Your task to perform on an android device: Open settings on Google Maps Image 0: 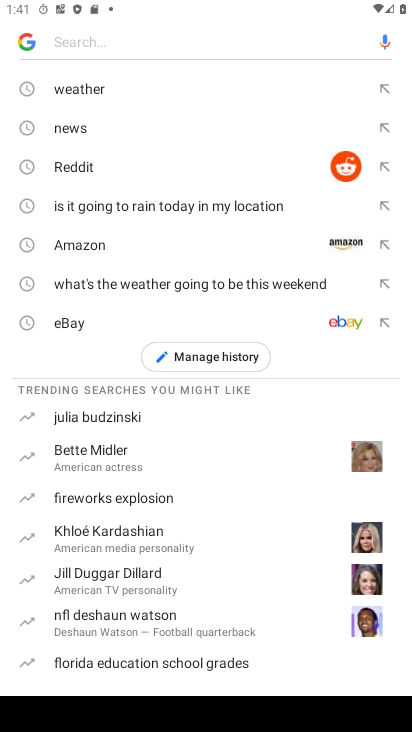
Step 0: press home button
Your task to perform on an android device: Open settings on Google Maps Image 1: 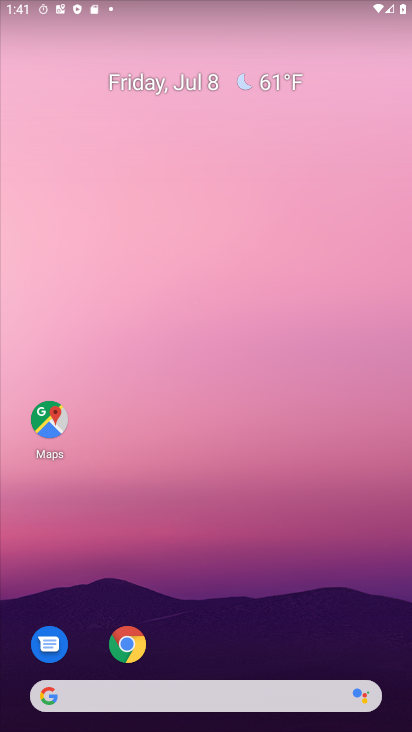
Step 1: drag from (178, 79) to (100, 118)
Your task to perform on an android device: Open settings on Google Maps Image 2: 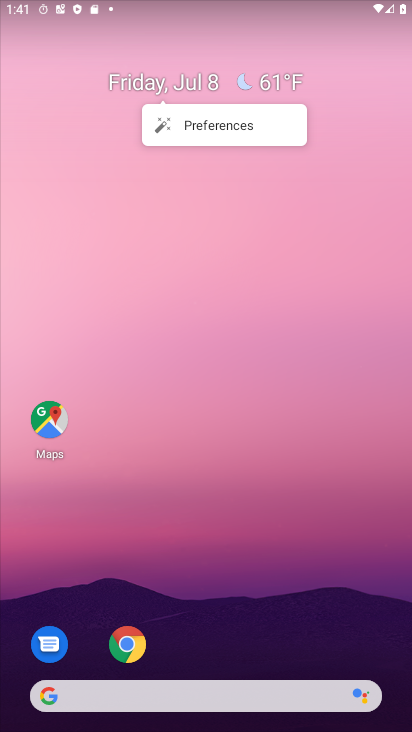
Step 2: click (48, 425)
Your task to perform on an android device: Open settings on Google Maps Image 3: 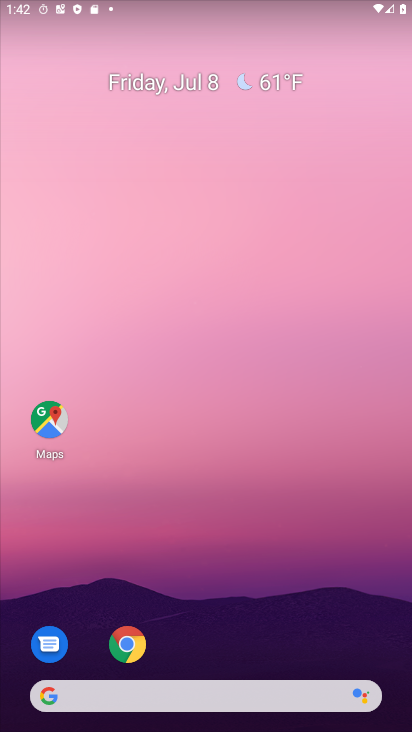
Step 3: click (48, 425)
Your task to perform on an android device: Open settings on Google Maps Image 4: 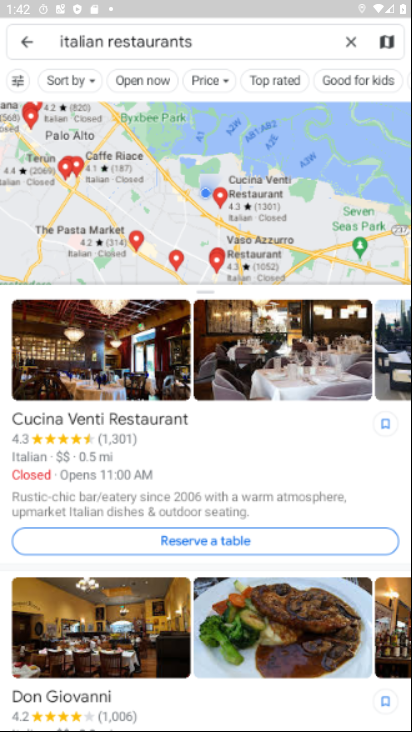
Step 4: click (28, 38)
Your task to perform on an android device: Open settings on Google Maps Image 5: 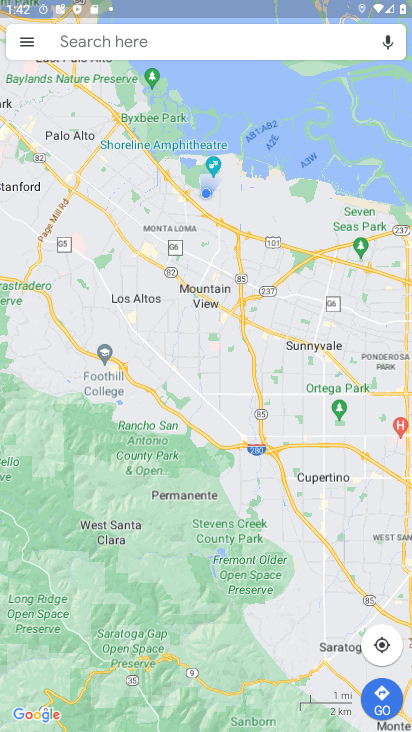
Step 5: click (27, 40)
Your task to perform on an android device: Open settings on Google Maps Image 6: 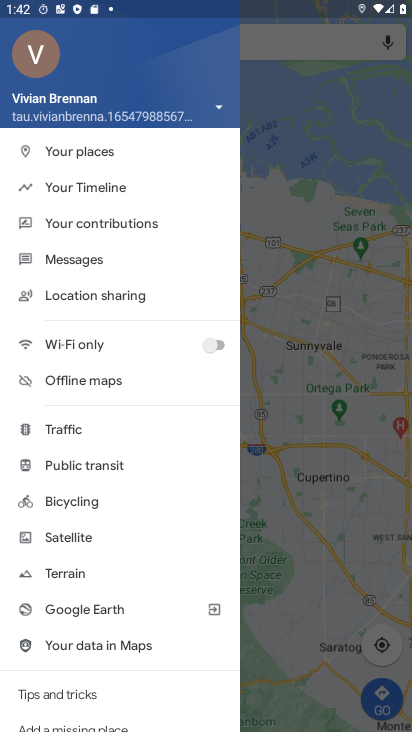
Step 6: drag from (91, 530) to (91, 299)
Your task to perform on an android device: Open settings on Google Maps Image 7: 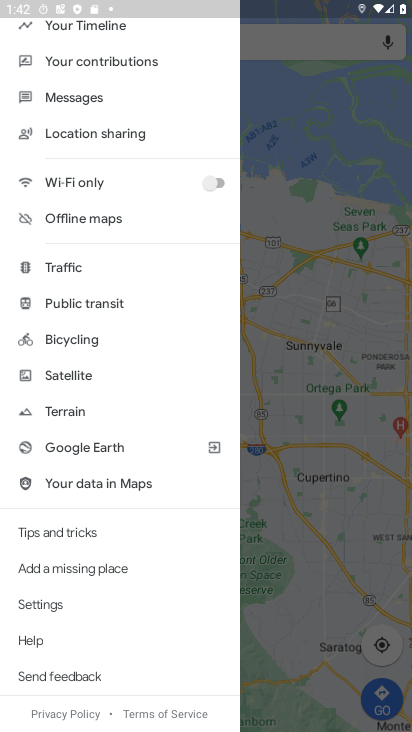
Step 7: click (38, 609)
Your task to perform on an android device: Open settings on Google Maps Image 8: 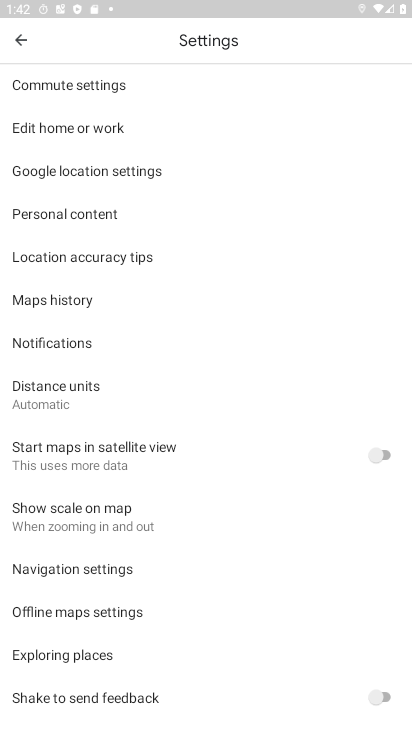
Step 8: task complete